Your task to perform on an android device: Add usb-c to usb-b to the cart on newegg.com Image 0: 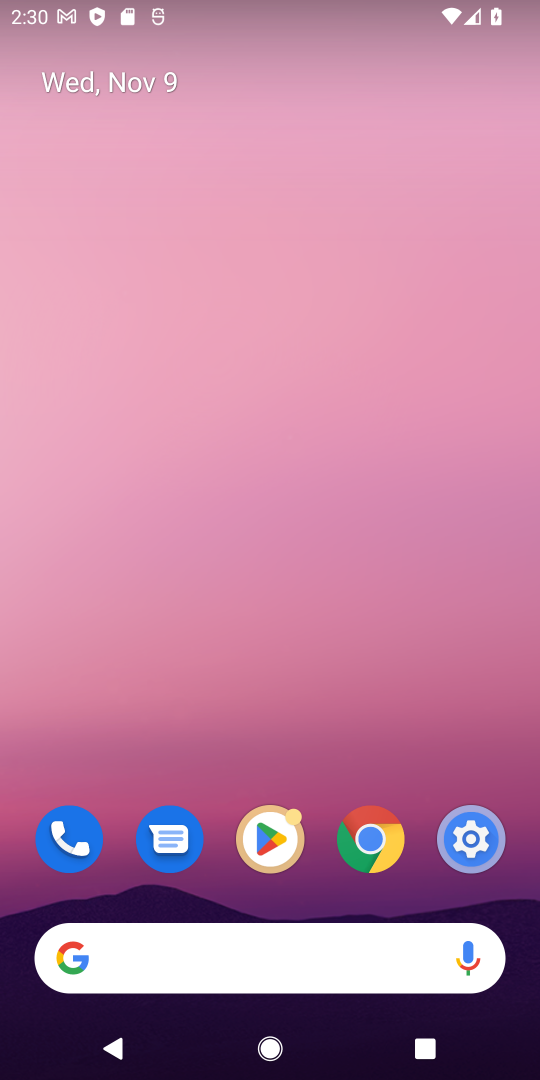
Step 0: click (286, 940)
Your task to perform on an android device: Add usb-c to usb-b to the cart on newegg.com Image 1: 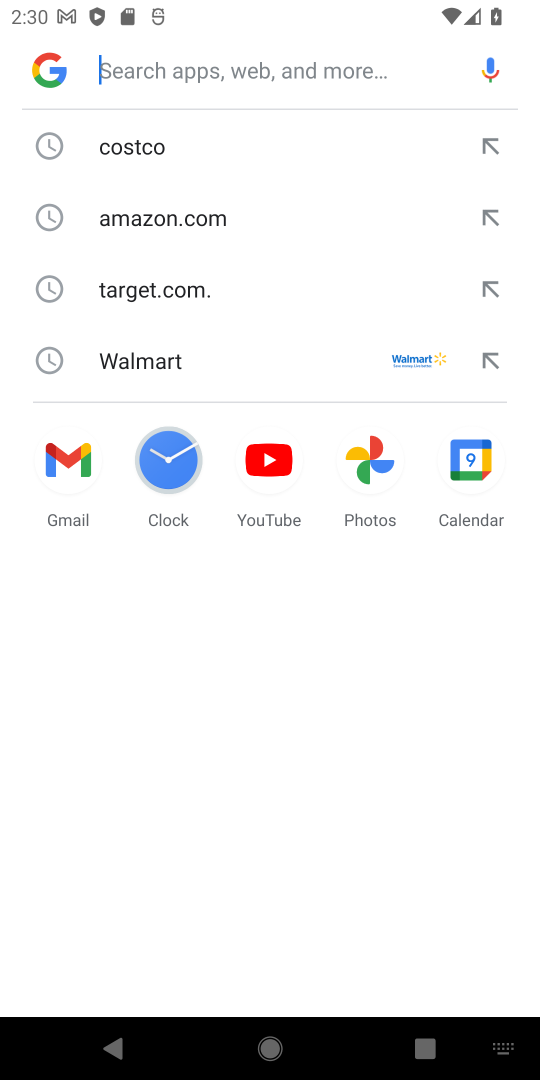
Step 1: type "newegg"
Your task to perform on an android device: Add usb-c to usb-b to the cart on newegg.com Image 2: 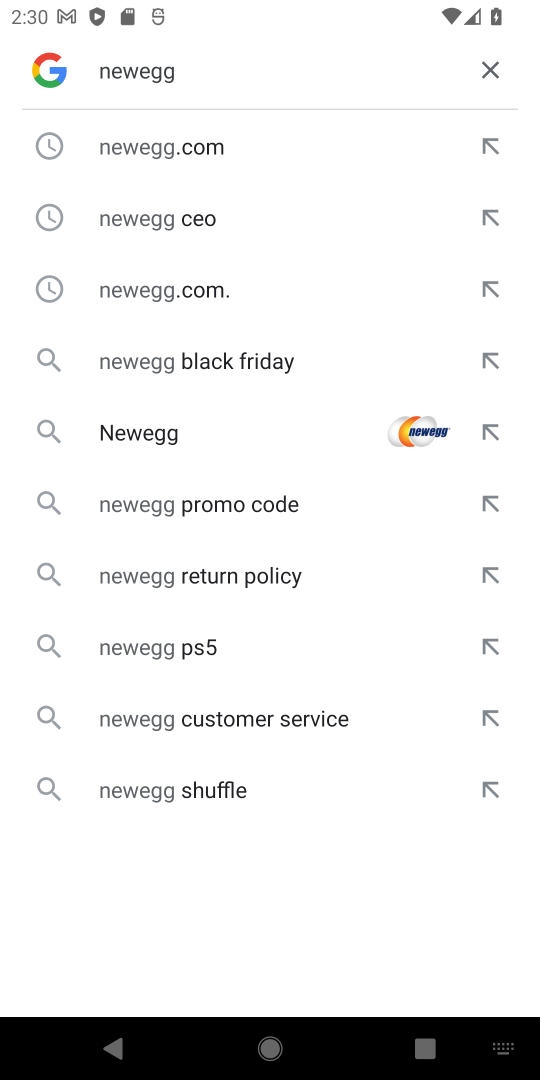
Step 2: click (257, 163)
Your task to perform on an android device: Add usb-c to usb-b to the cart on newegg.com Image 3: 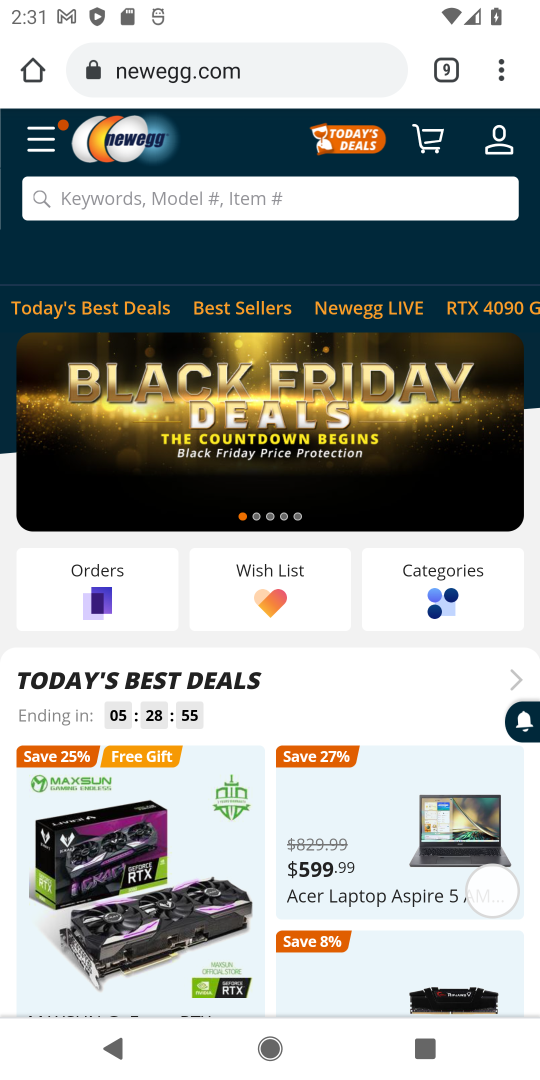
Step 3: click (223, 211)
Your task to perform on an android device: Add usb-c to usb-b to the cart on newegg.com Image 4: 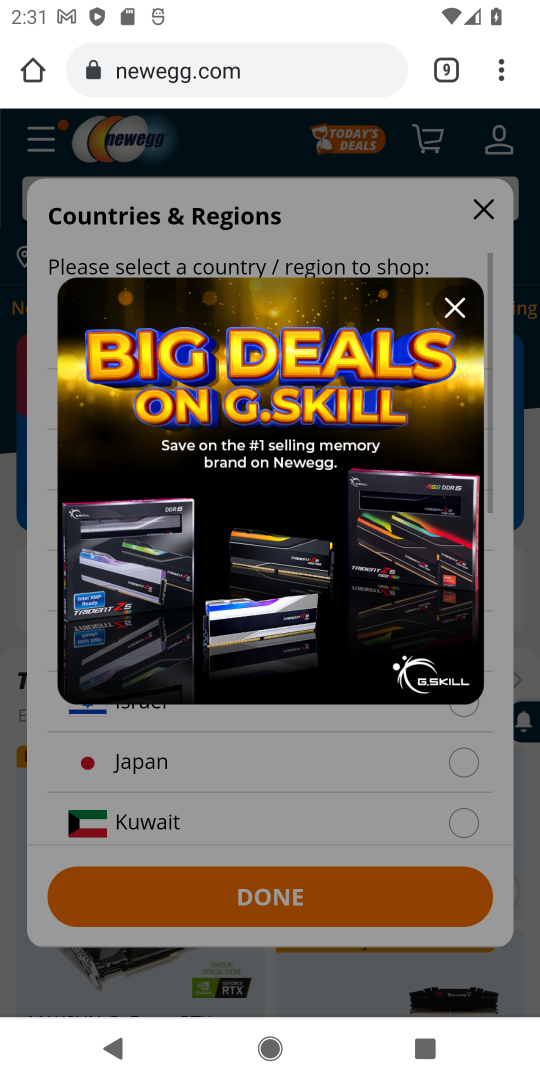
Step 4: click (450, 321)
Your task to perform on an android device: Add usb-c to usb-b to the cart on newegg.com Image 5: 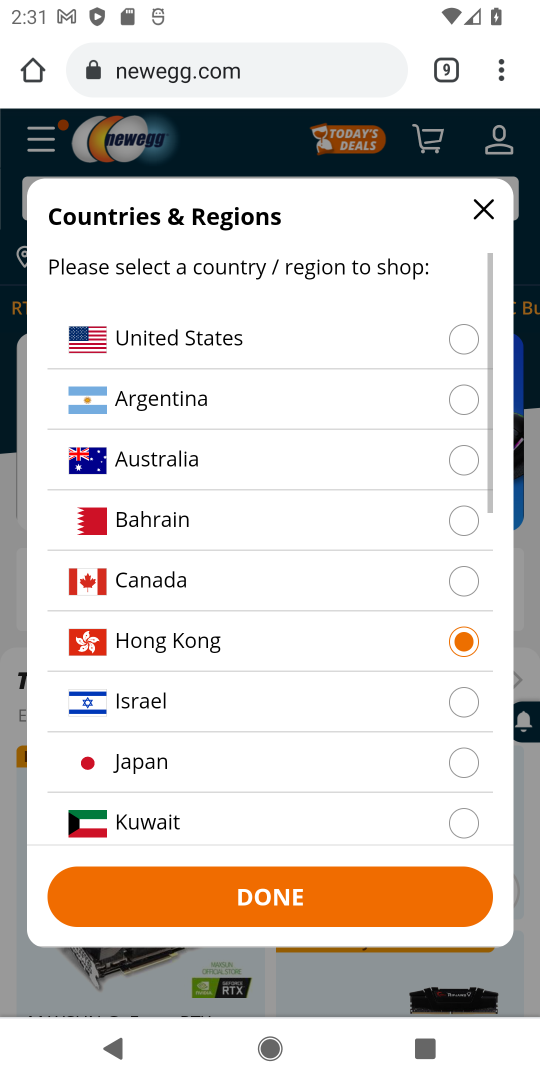
Step 5: click (273, 344)
Your task to perform on an android device: Add usb-c to usb-b to the cart on newegg.com Image 6: 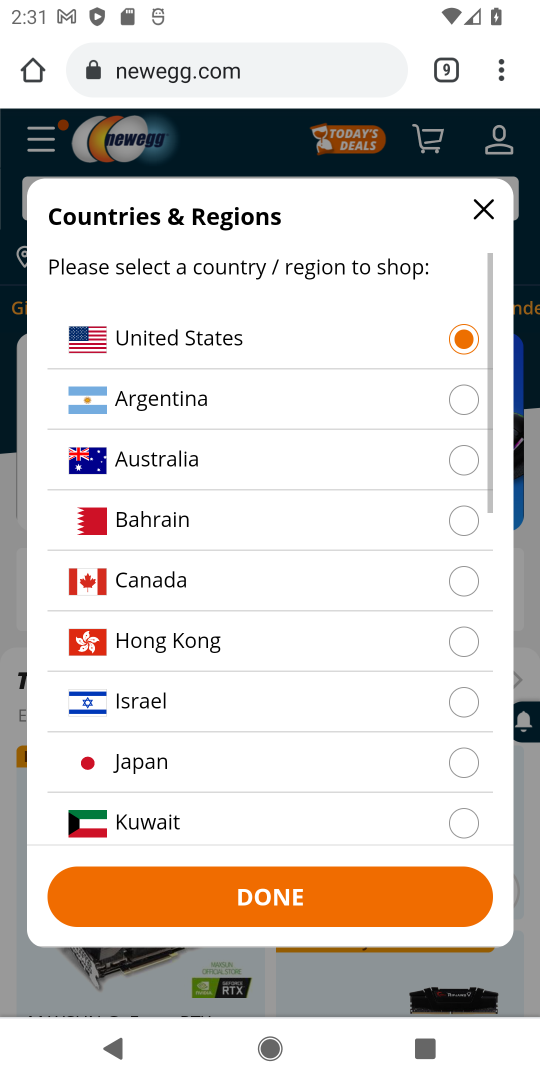
Step 6: click (288, 891)
Your task to perform on an android device: Add usb-c to usb-b to the cart on newegg.com Image 7: 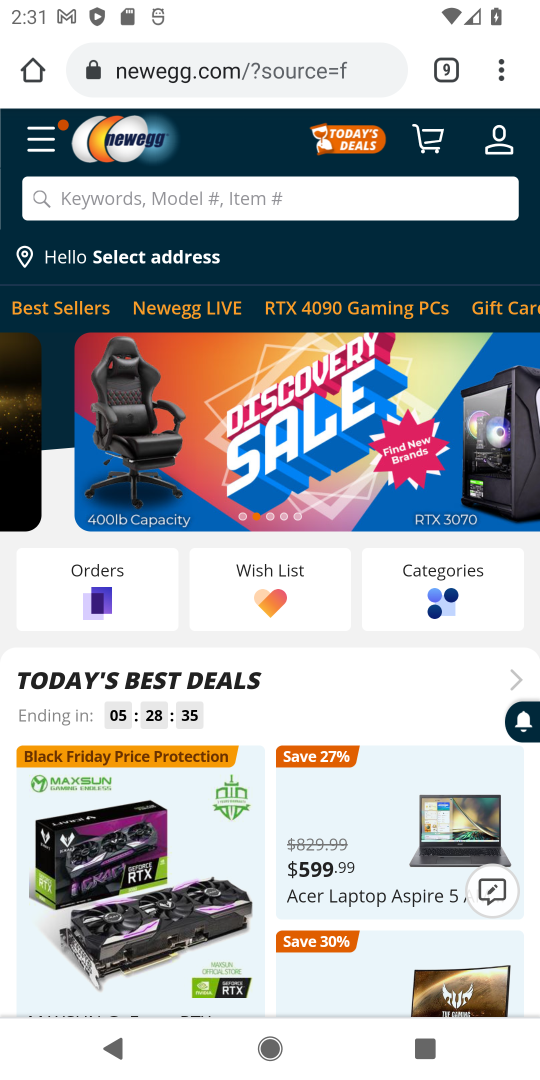
Step 7: task complete